Your task to perform on an android device: toggle pop-ups in chrome Image 0: 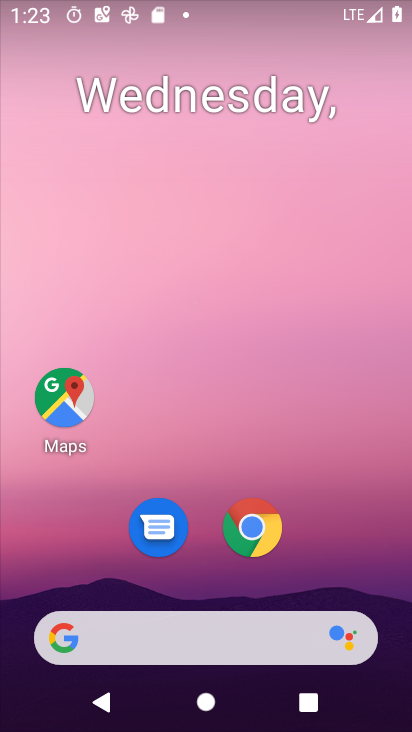
Step 0: drag from (228, 669) to (310, 169)
Your task to perform on an android device: toggle pop-ups in chrome Image 1: 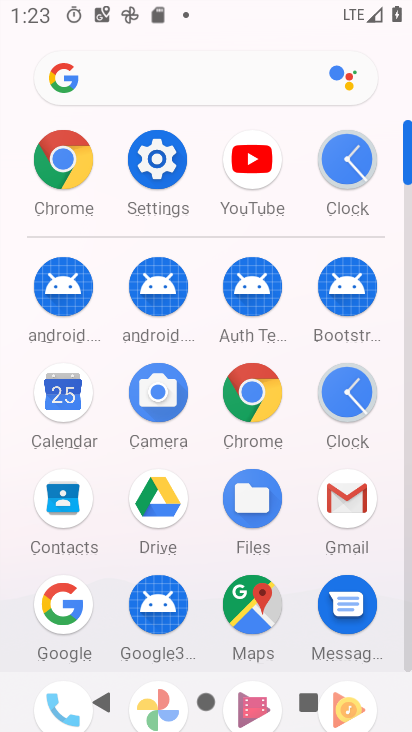
Step 1: click (258, 389)
Your task to perform on an android device: toggle pop-ups in chrome Image 2: 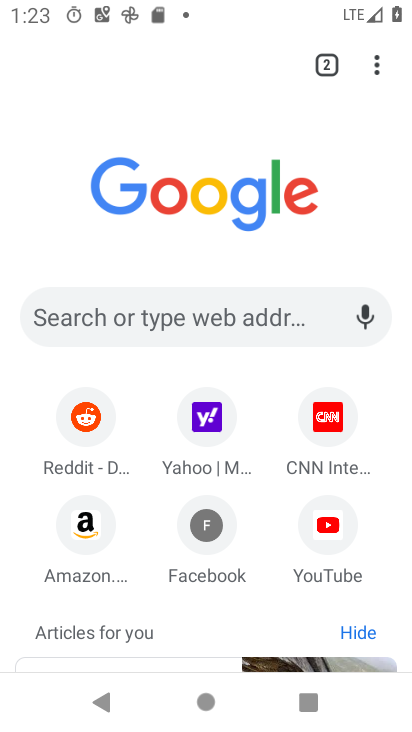
Step 2: click (373, 61)
Your task to perform on an android device: toggle pop-ups in chrome Image 3: 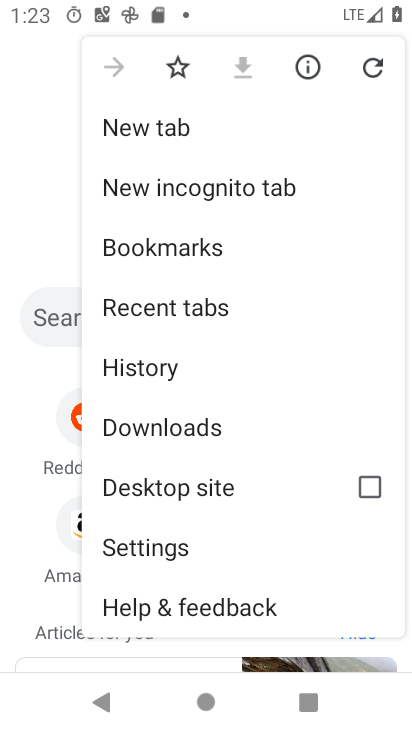
Step 3: click (191, 543)
Your task to perform on an android device: toggle pop-ups in chrome Image 4: 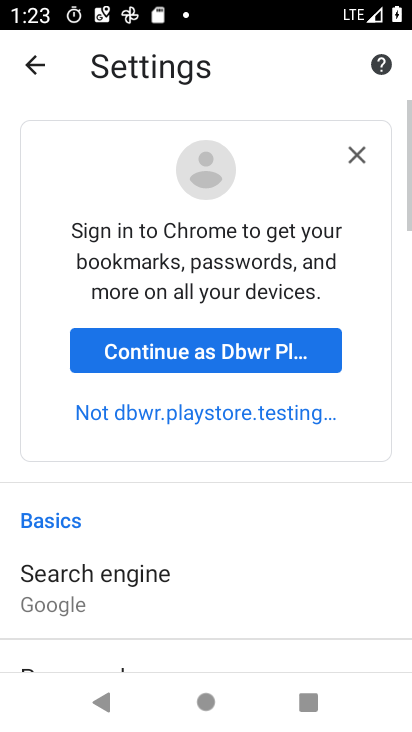
Step 4: drag from (192, 564) to (281, 2)
Your task to perform on an android device: toggle pop-ups in chrome Image 5: 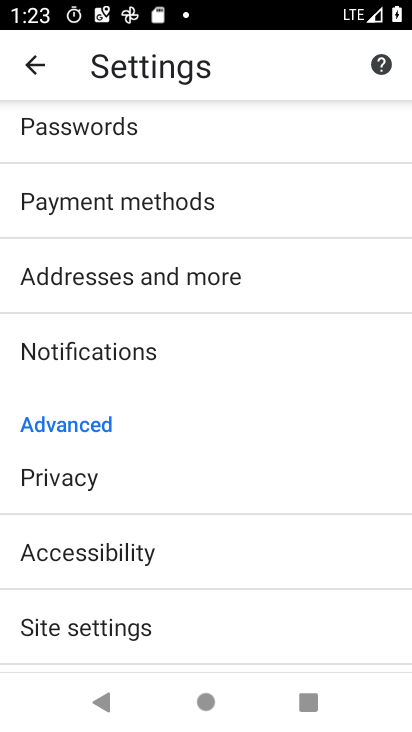
Step 5: click (184, 605)
Your task to perform on an android device: toggle pop-ups in chrome Image 6: 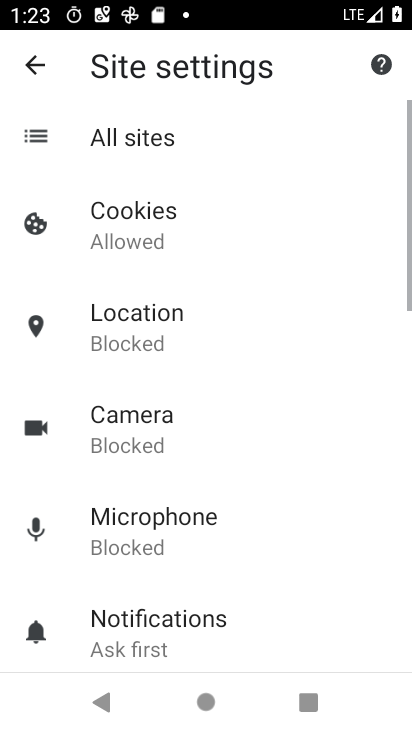
Step 6: drag from (184, 605) to (309, 45)
Your task to perform on an android device: toggle pop-ups in chrome Image 7: 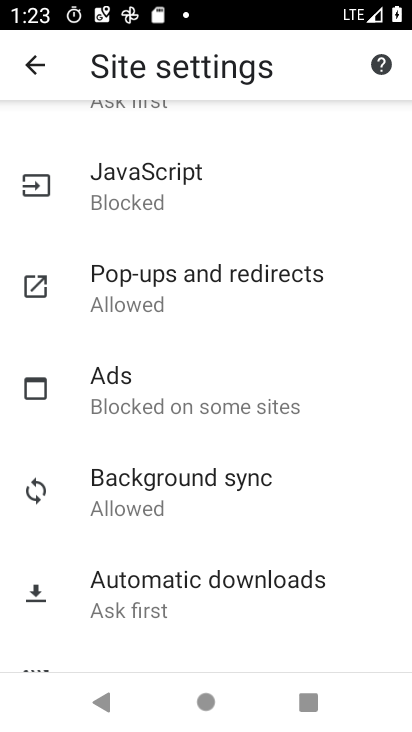
Step 7: click (261, 292)
Your task to perform on an android device: toggle pop-ups in chrome Image 8: 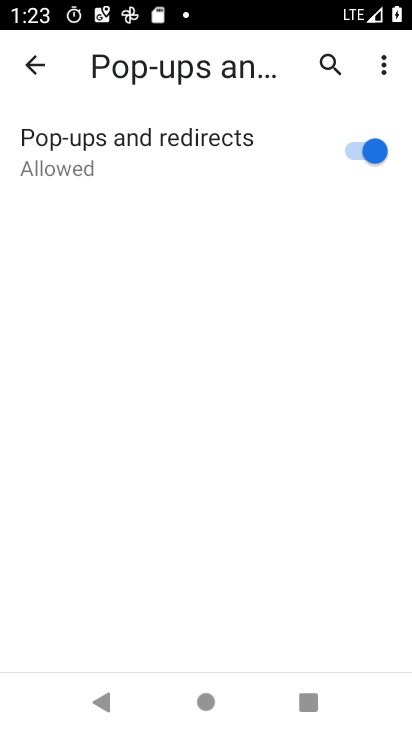
Step 8: click (360, 146)
Your task to perform on an android device: toggle pop-ups in chrome Image 9: 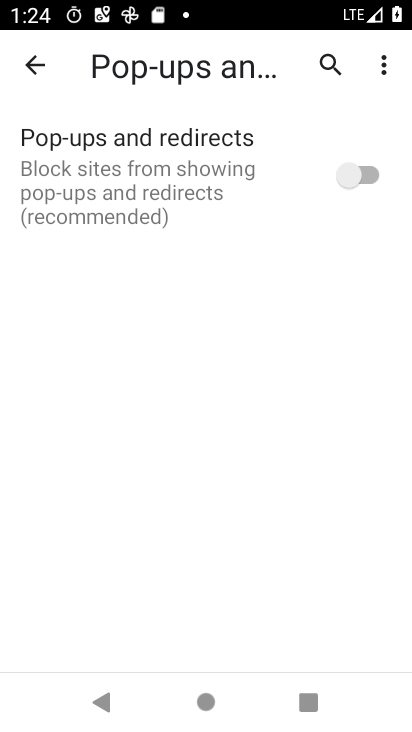
Step 9: task complete